Your task to perform on an android device: See recent photos Image 0: 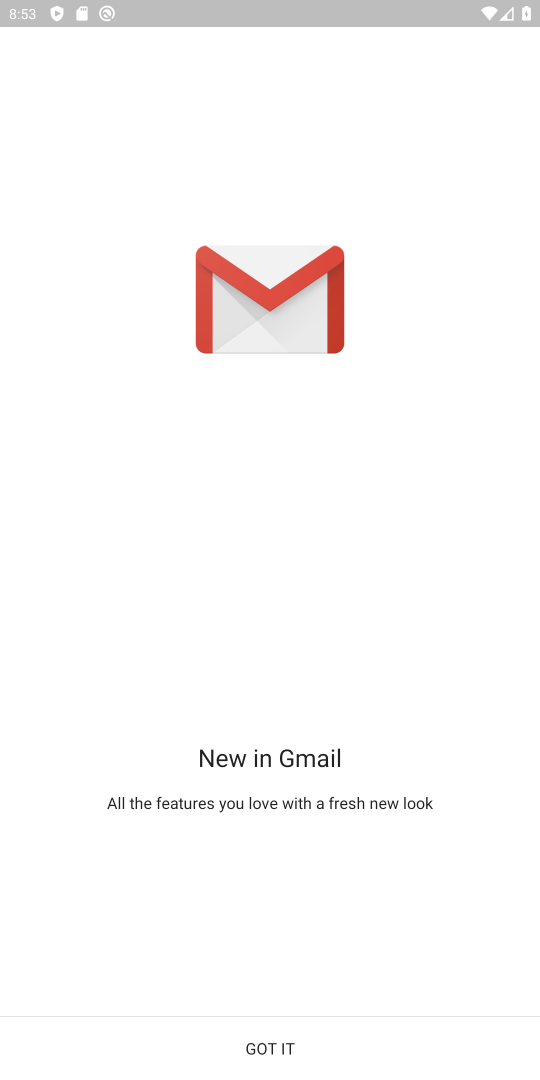
Step 0: click (419, 1029)
Your task to perform on an android device: See recent photos Image 1: 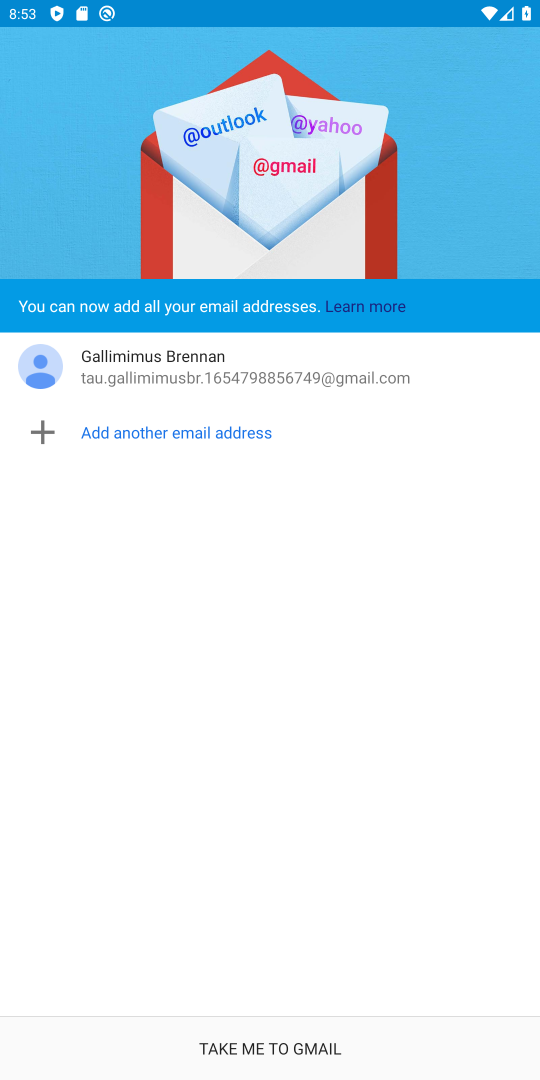
Step 1: click (419, 1040)
Your task to perform on an android device: See recent photos Image 2: 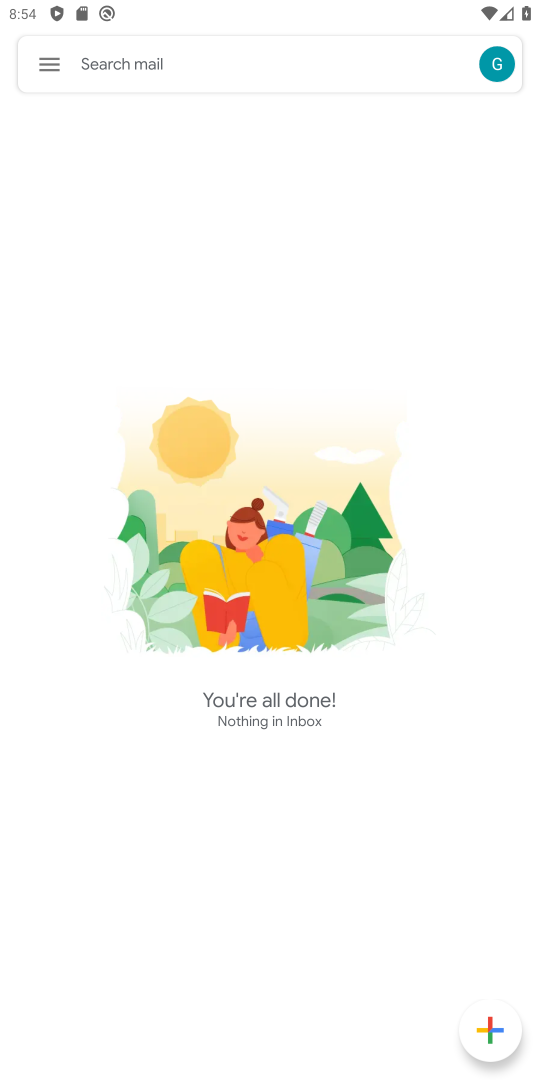
Step 2: press home button
Your task to perform on an android device: See recent photos Image 3: 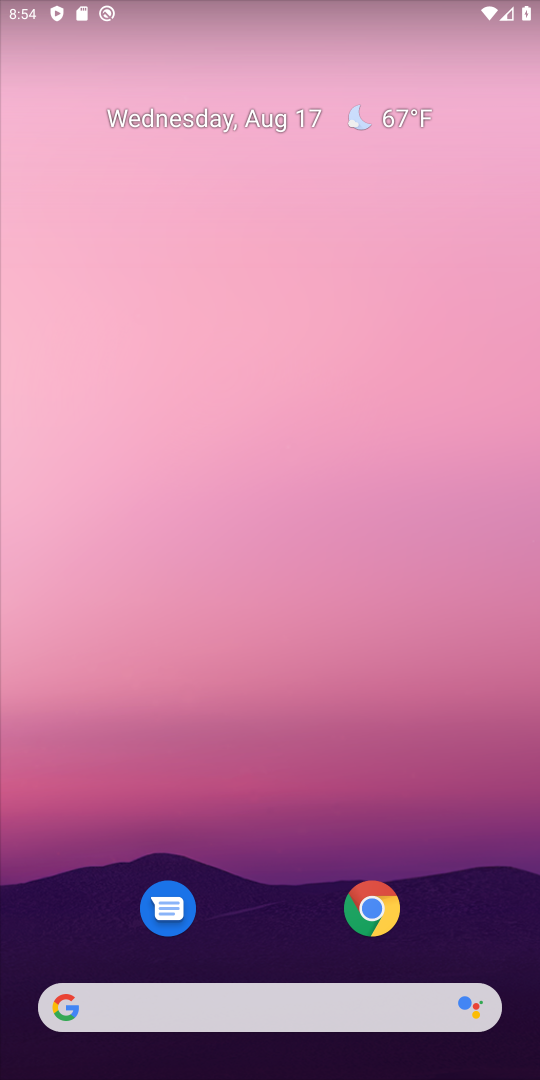
Step 3: drag from (255, 883) to (97, 106)
Your task to perform on an android device: See recent photos Image 4: 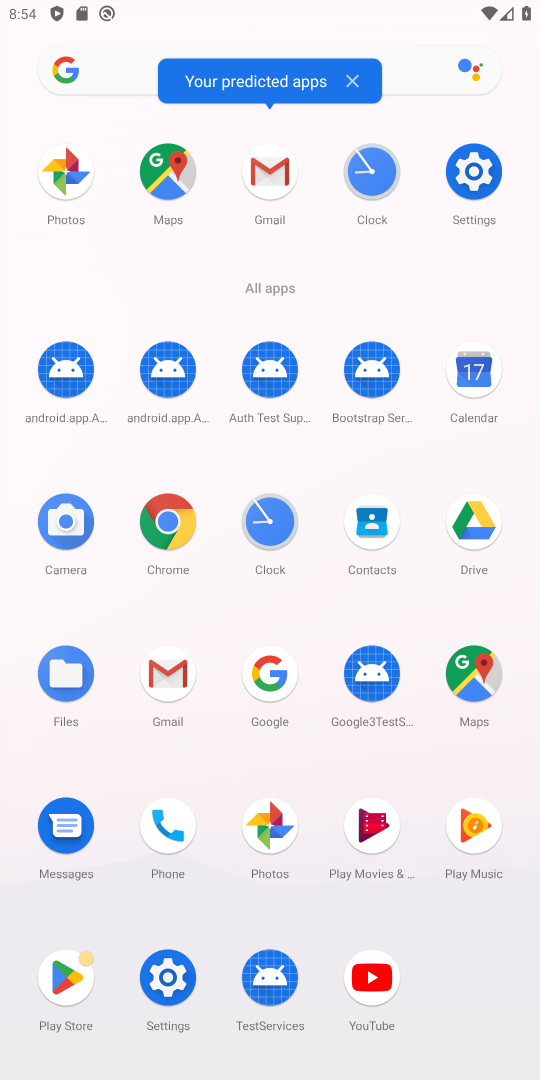
Step 4: click (269, 815)
Your task to perform on an android device: See recent photos Image 5: 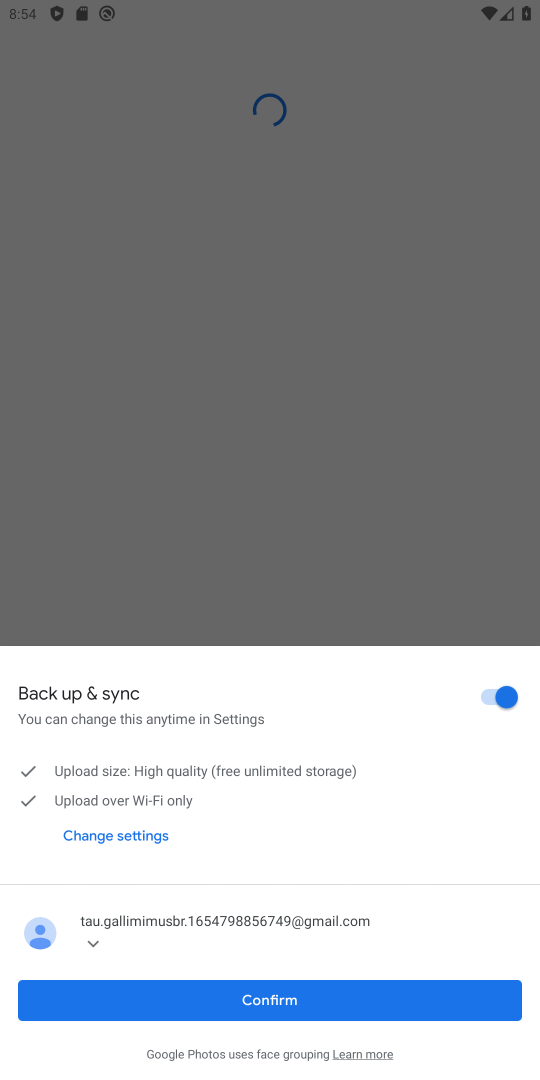
Step 5: click (352, 995)
Your task to perform on an android device: See recent photos Image 6: 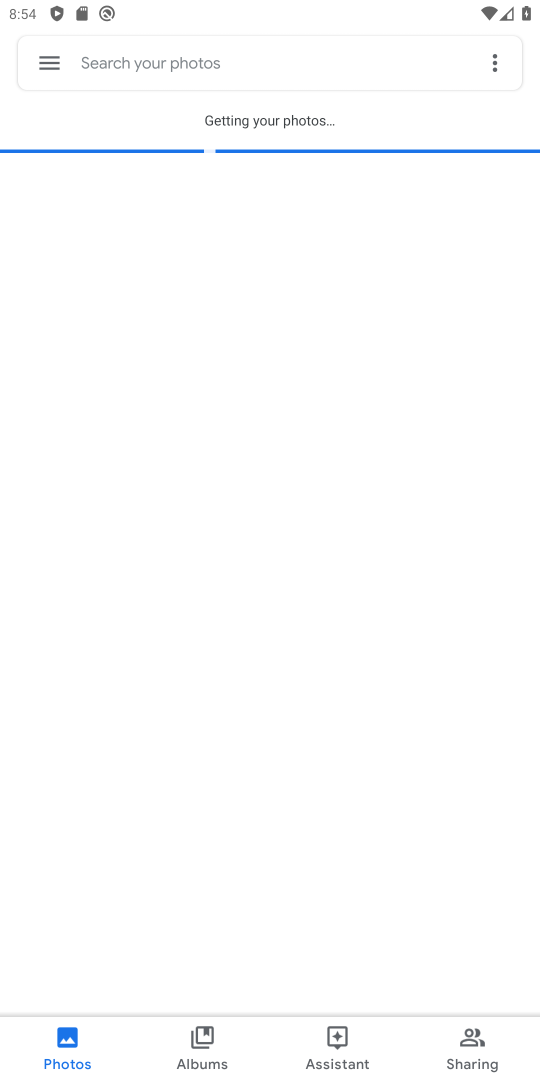
Step 6: task complete